Your task to perform on an android device: toggle javascript in the chrome app Image 0: 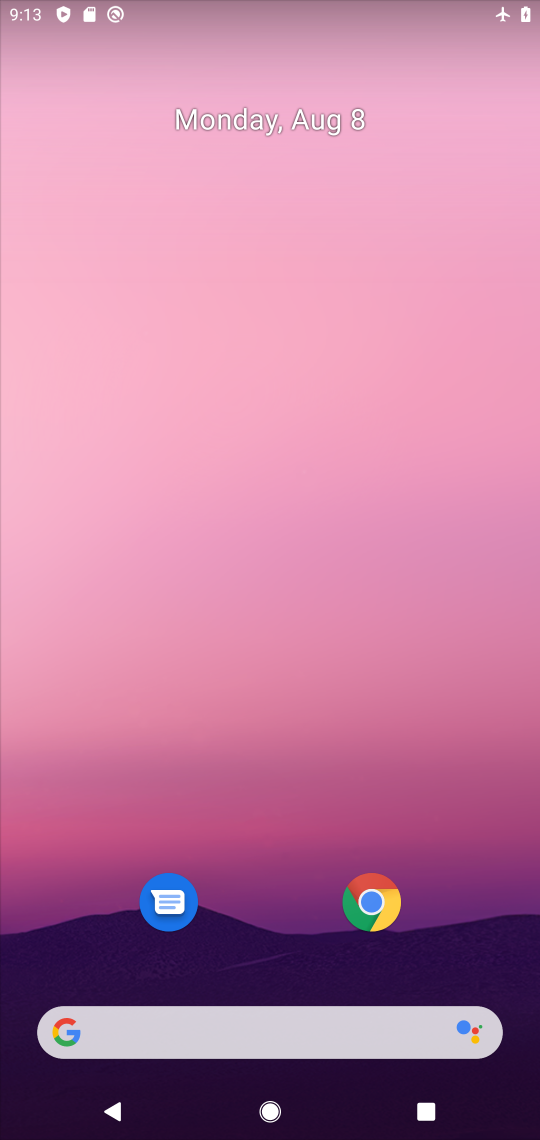
Step 0: click (359, 908)
Your task to perform on an android device: toggle javascript in the chrome app Image 1: 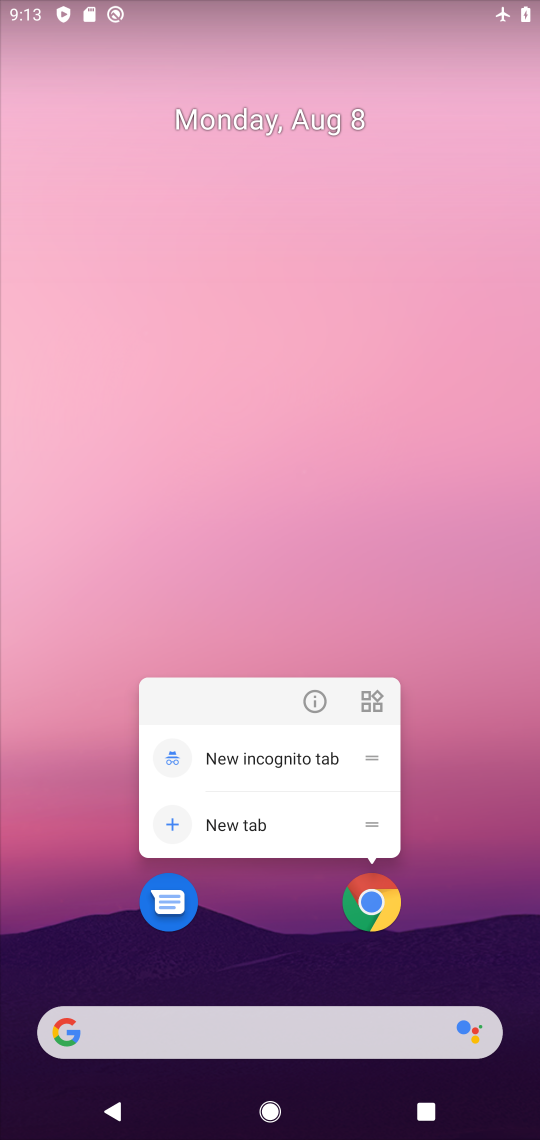
Step 1: click (359, 908)
Your task to perform on an android device: toggle javascript in the chrome app Image 2: 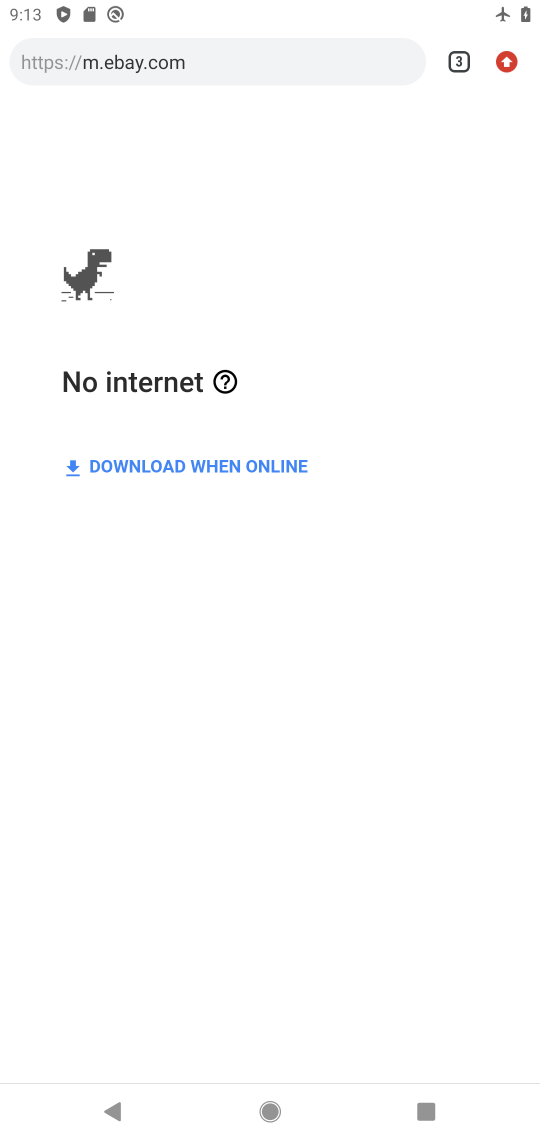
Step 2: click (509, 69)
Your task to perform on an android device: toggle javascript in the chrome app Image 3: 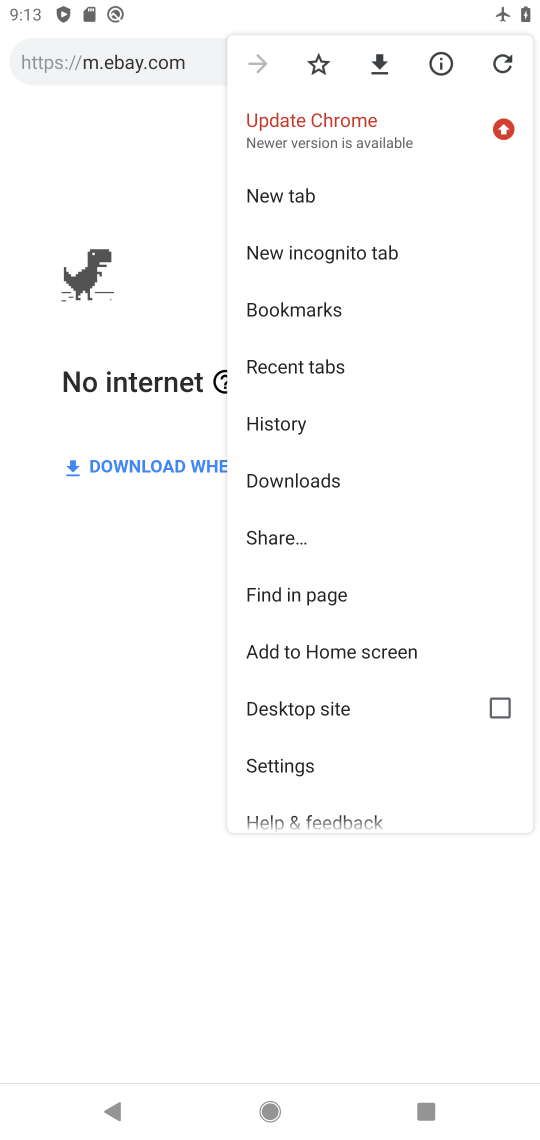
Step 3: click (299, 767)
Your task to perform on an android device: toggle javascript in the chrome app Image 4: 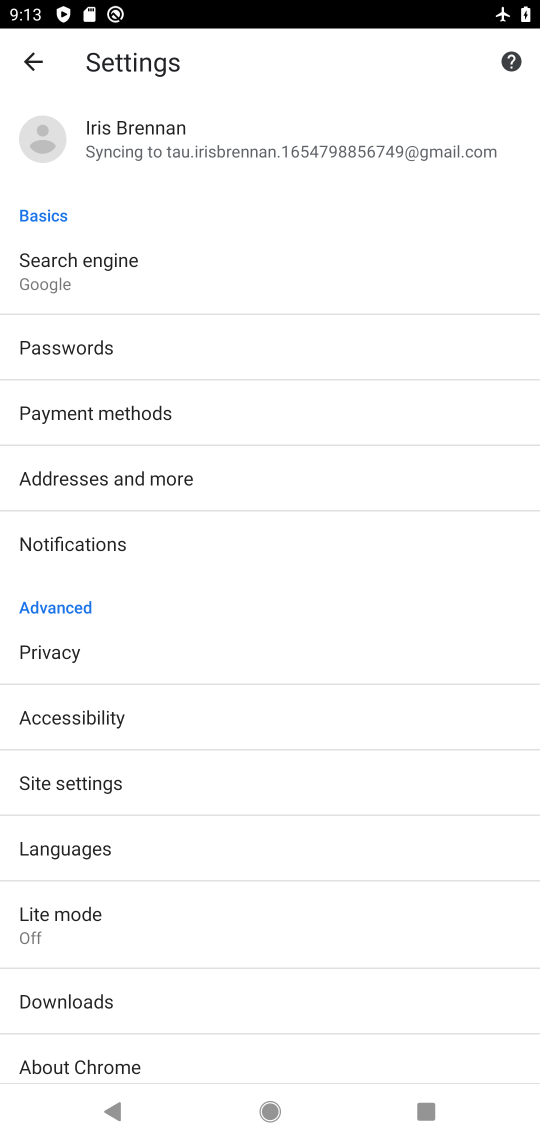
Step 4: click (52, 778)
Your task to perform on an android device: toggle javascript in the chrome app Image 5: 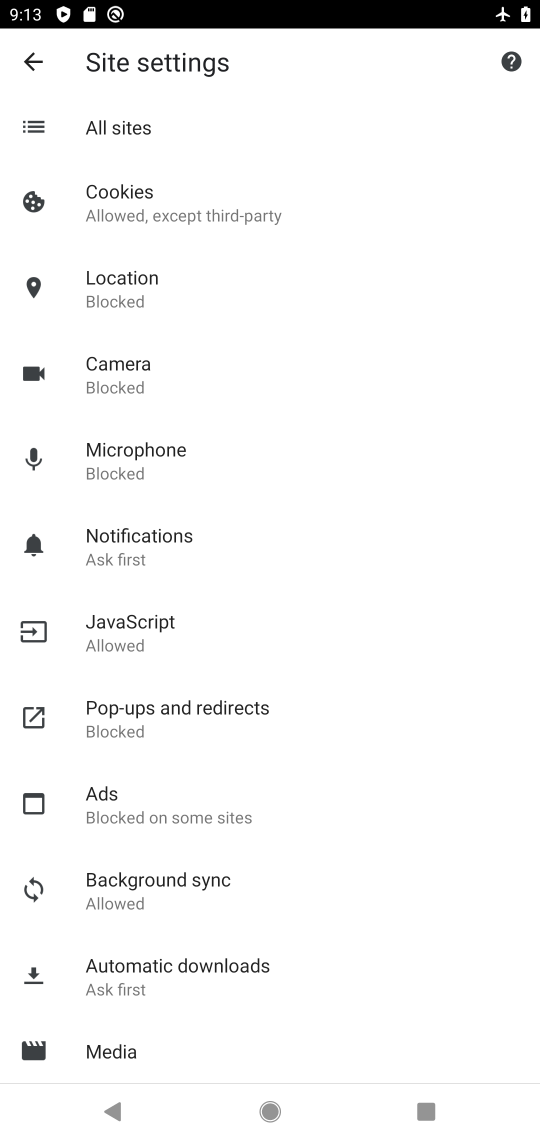
Step 5: click (69, 649)
Your task to perform on an android device: toggle javascript in the chrome app Image 6: 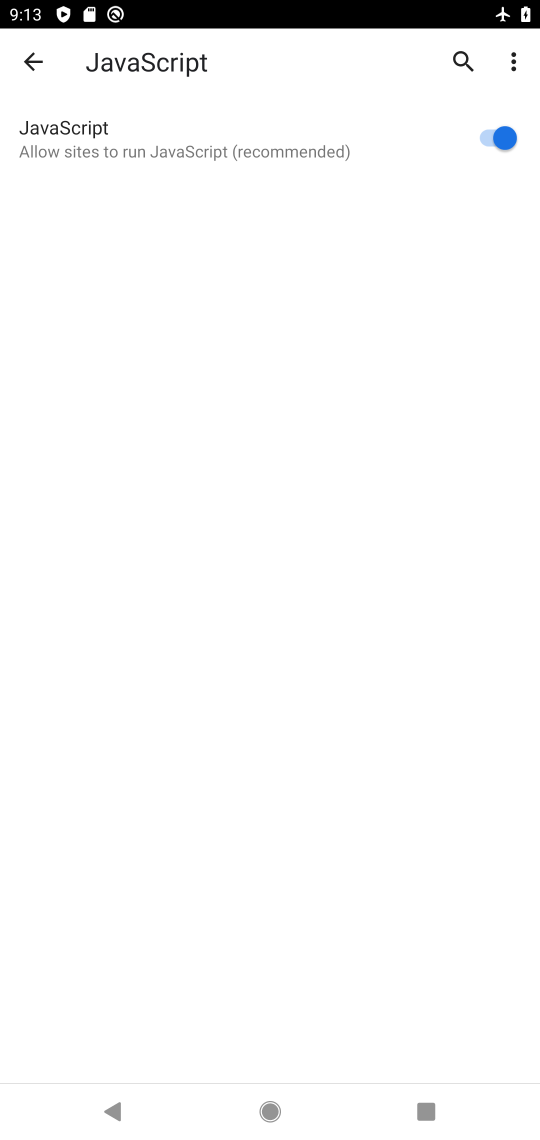
Step 6: click (480, 123)
Your task to perform on an android device: toggle javascript in the chrome app Image 7: 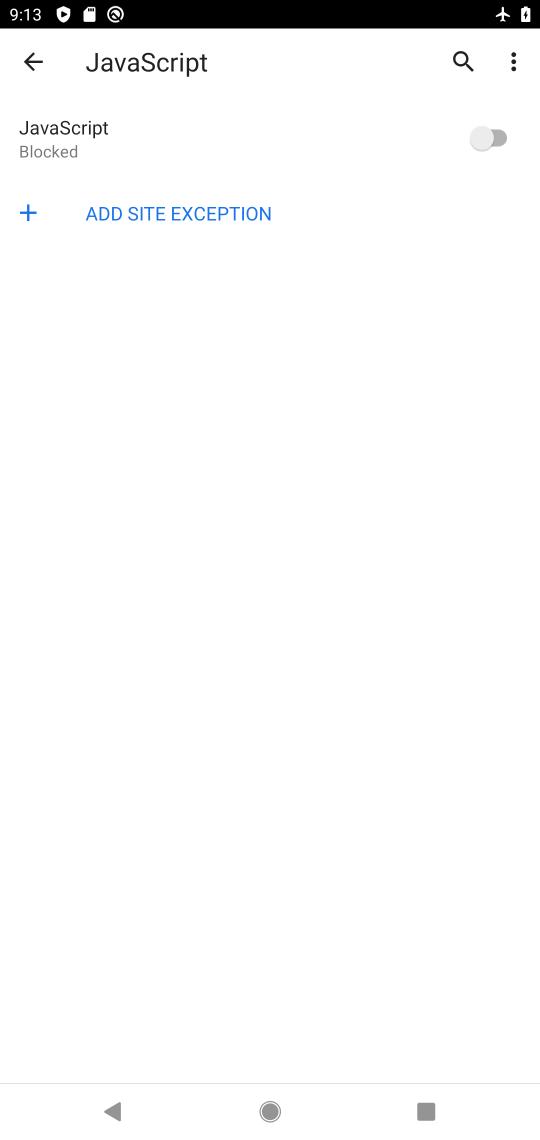
Step 7: task complete